Your task to perform on an android device: change the clock style Image 0: 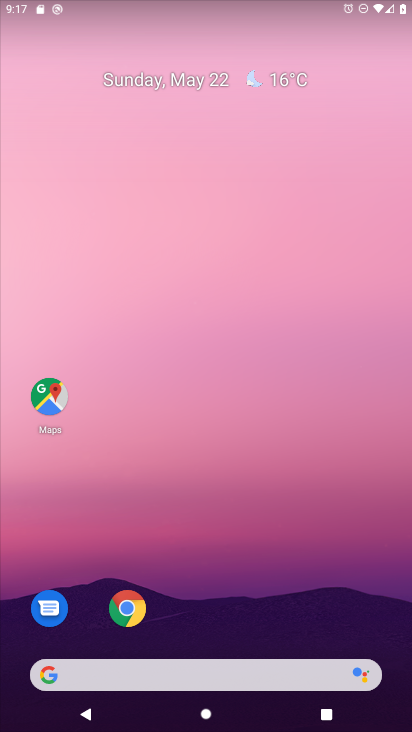
Step 0: drag from (223, 726) to (220, 173)
Your task to perform on an android device: change the clock style Image 1: 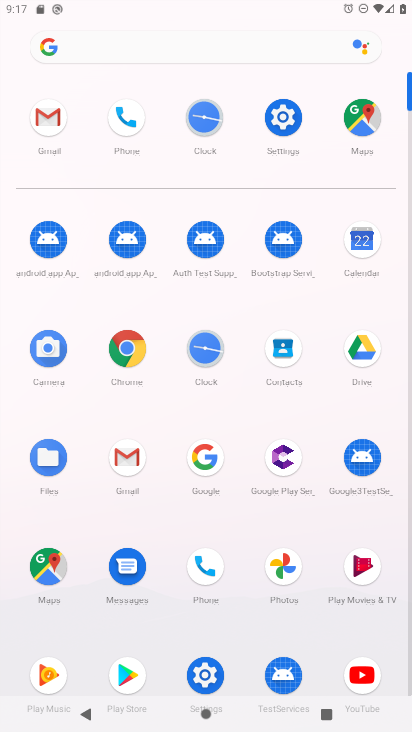
Step 1: click (204, 351)
Your task to perform on an android device: change the clock style Image 2: 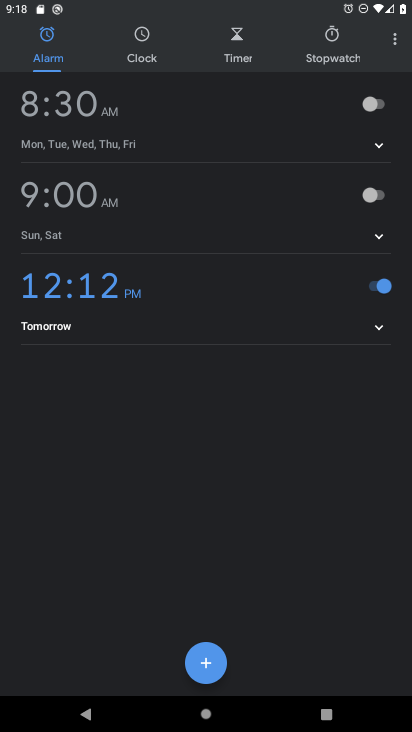
Step 2: click (397, 45)
Your task to perform on an android device: change the clock style Image 3: 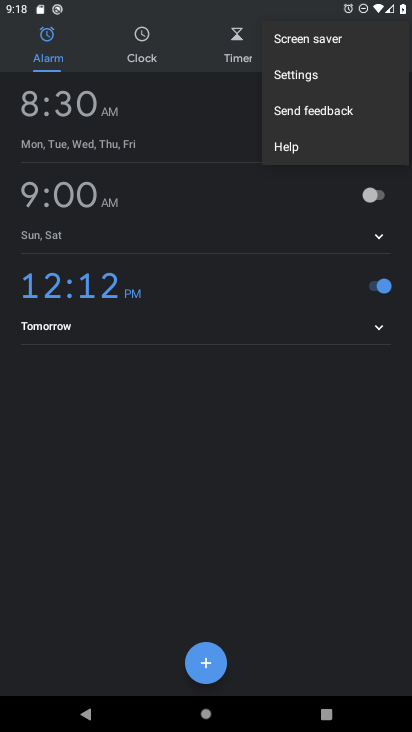
Step 3: click (304, 72)
Your task to perform on an android device: change the clock style Image 4: 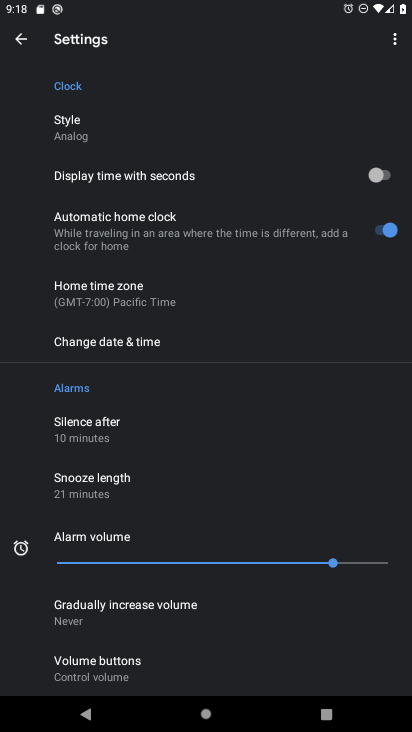
Step 4: click (72, 134)
Your task to perform on an android device: change the clock style Image 5: 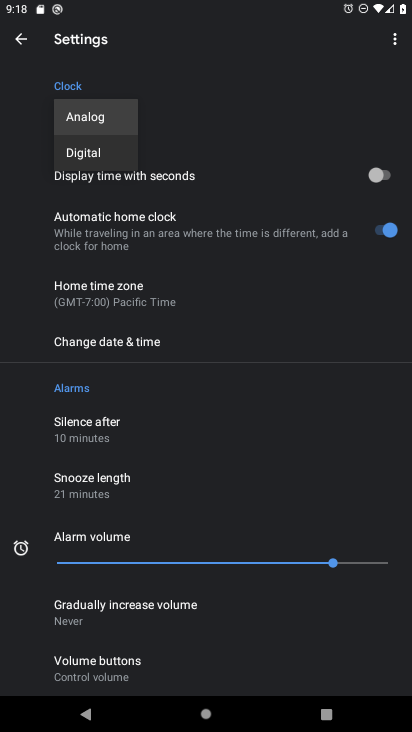
Step 5: click (82, 160)
Your task to perform on an android device: change the clock style Image 6: 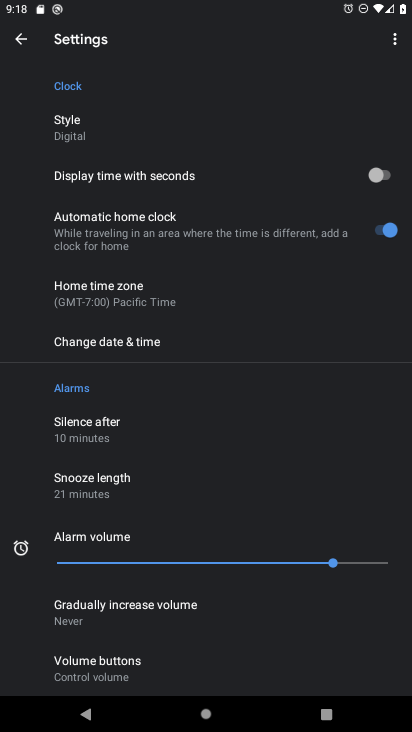
Step 6: task complete